Your task to perform on an android device: Clear the shopping cart on amazon.com. Image 0: 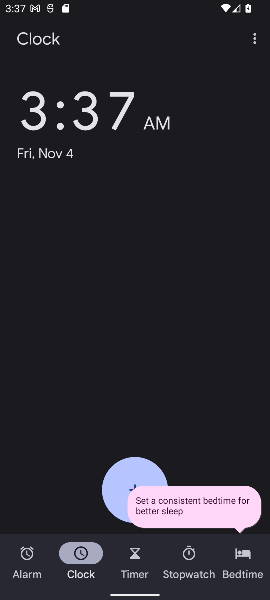
Step 0: press home button
Your task to perform on an android device: Clear the shopping cart on amazon.com. Image 1: 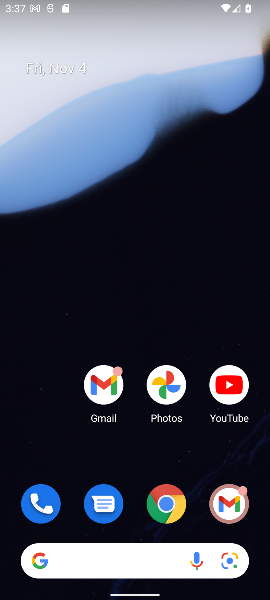
Step 1: click (167, 512)
Your task to perform on an android device: Clear the shopping cart on amazon.com. Image 2: 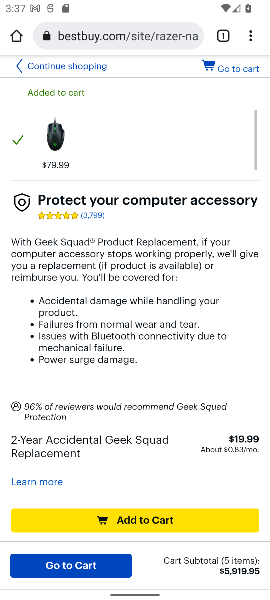
Step 2: click (135, 35)
Your task to perform on an android device: Clear the shopping cart on amazon.com. Image 3: 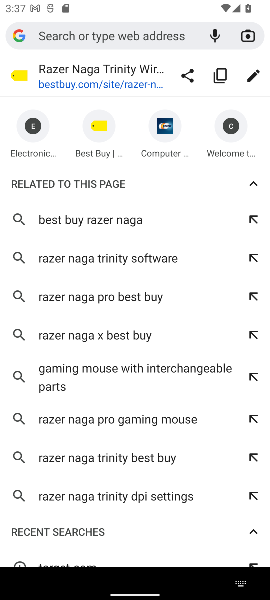
Step 3: type "amazon.com"
Your task to perform on an android device: Clear the shopping cart on amazon.com. Image 4: 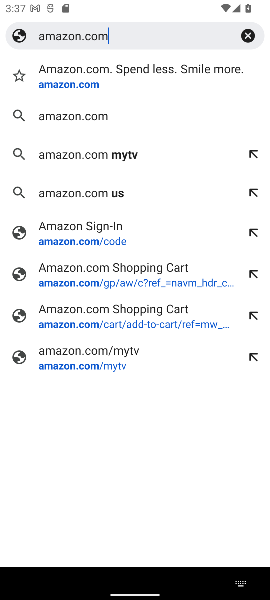
Step 4: click (73, 83)
Your task to perform on an android device: Clear the shopping cart on amazon.com. Image 5: 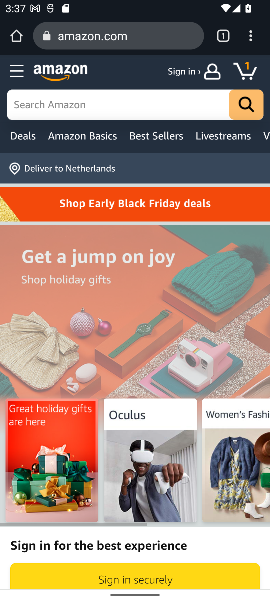
Step 5: click (259, 71)
Your task to perform on an android device: Clear the shopping cart on amazon.com. Image 6: 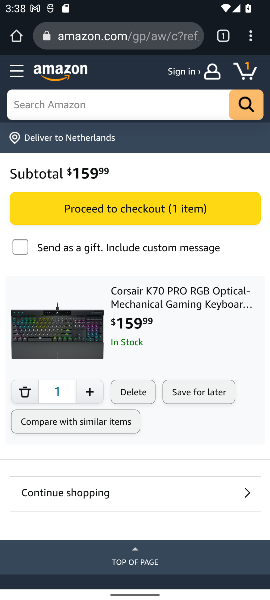
Step 6: click (141, 391)
Your task to perform on an android device: Clear the shopping cart on amazon.com. Image 7: 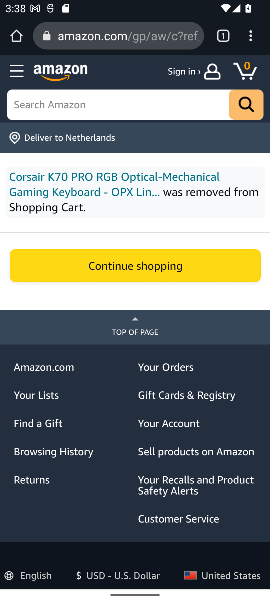
Step 7: task complete